Your task to perform on an android device: Go to eBay Image 0: 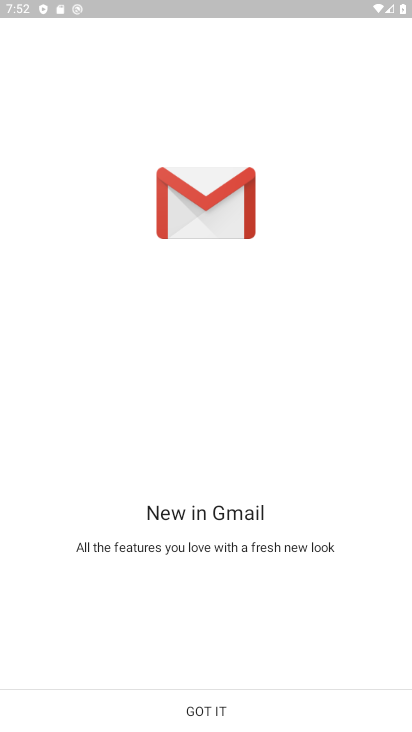
Step 0: press home button
Your task to perform on an android device: Go to eBay Image 1: 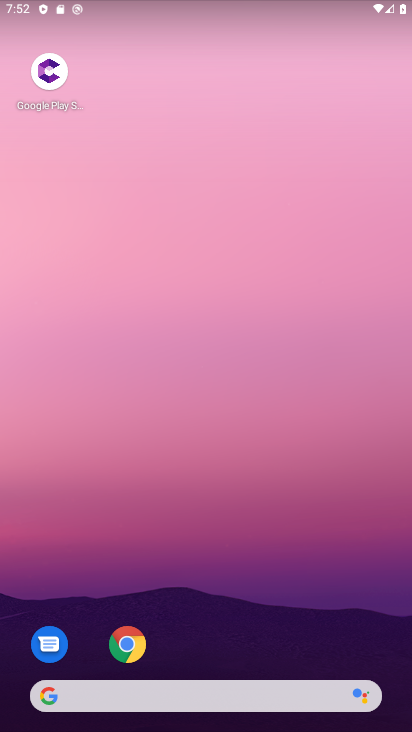
Step 1: click (125, 648)
Your task to perform on an android device: Go to eBay Image 2: 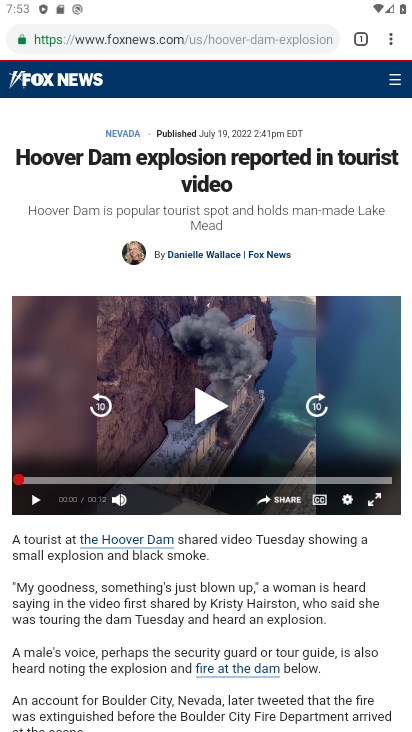
Step 2: click (102, 38)
Your task to perform on an android device: Go to eBay Image 3: 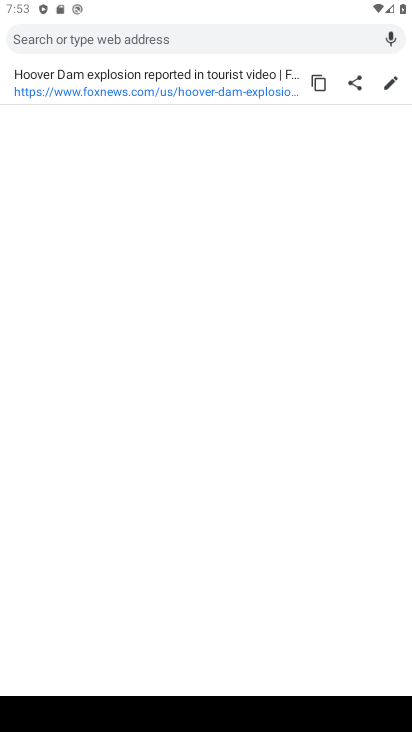
Step 3: type "ebay"
Your task to perform on an android device: Go to eBay Image 4: 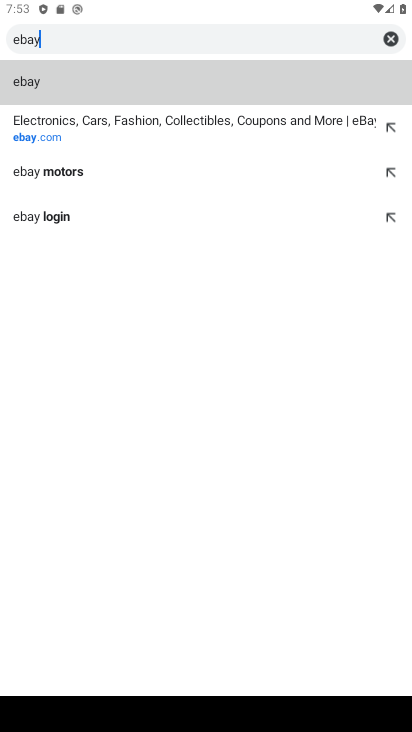
Step 4: click (93, 70)
Your task to perform on an android device: Go to eBay Image 5: 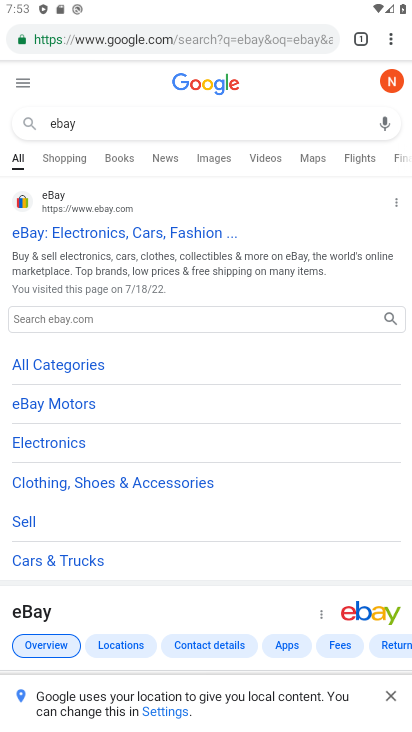
Step 5: click (74, 238)
Your task to perform on an android device: Go to eBay Image 6: 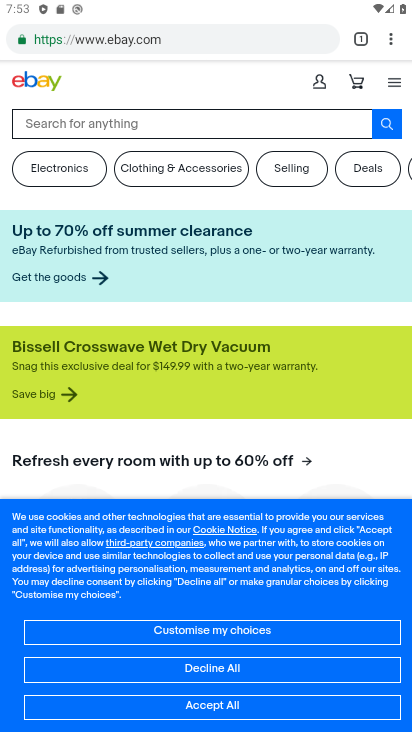
Step 6: task complete